Your task to perform on an android device: open a bookmark in the chrome app Image 0: 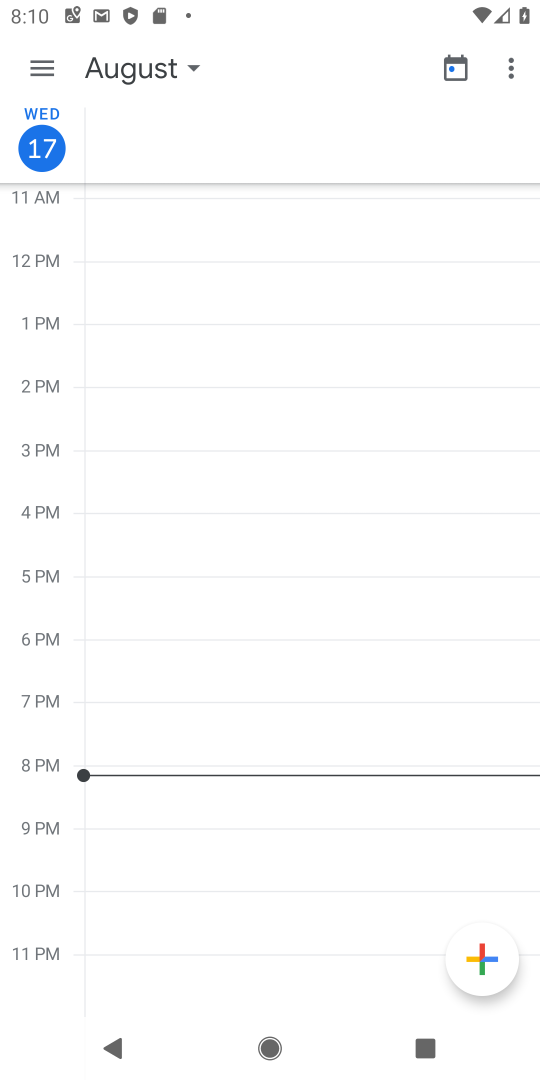
Step 0: press home button
Your task to perform on an android device: open a bookmark in the chrome app Image 1: 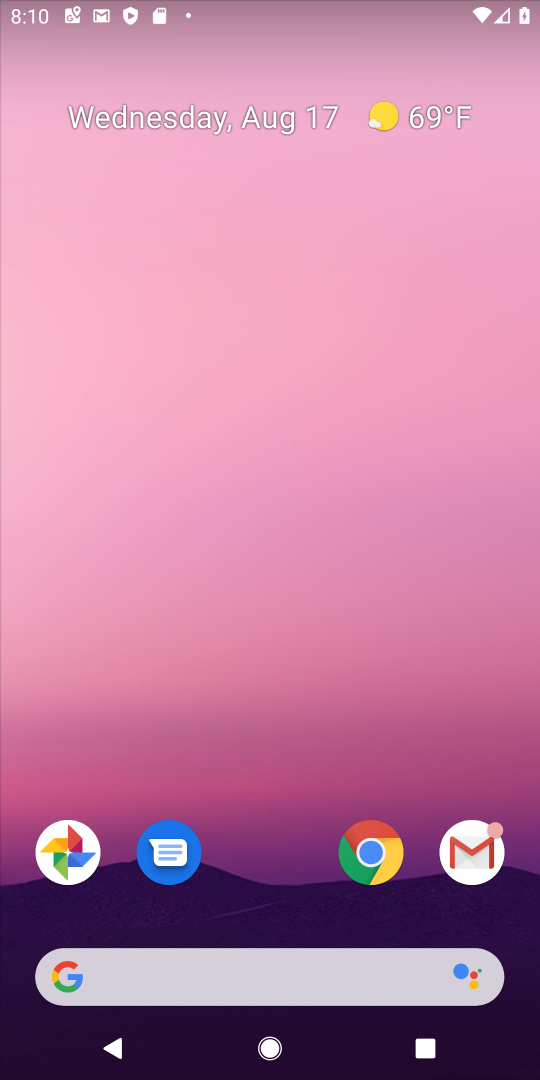
Step 1: click (372, 861)
Your task to perform on an android device: open a bookmark in the chrome app Image 2: 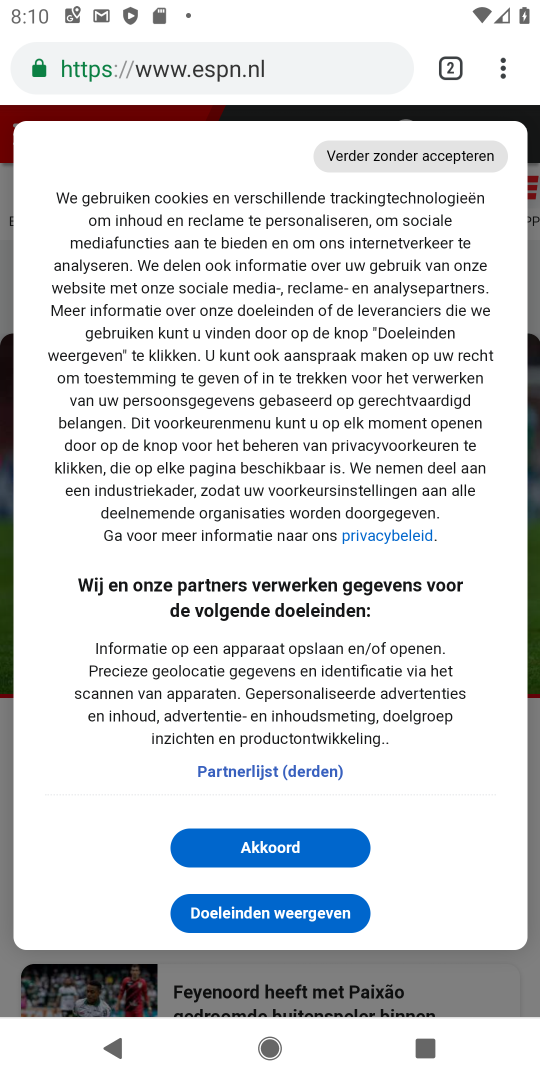
Step 2: click (505, 65)
Your task to perform on an android device: open a bookmark in the chrome app Image 3: 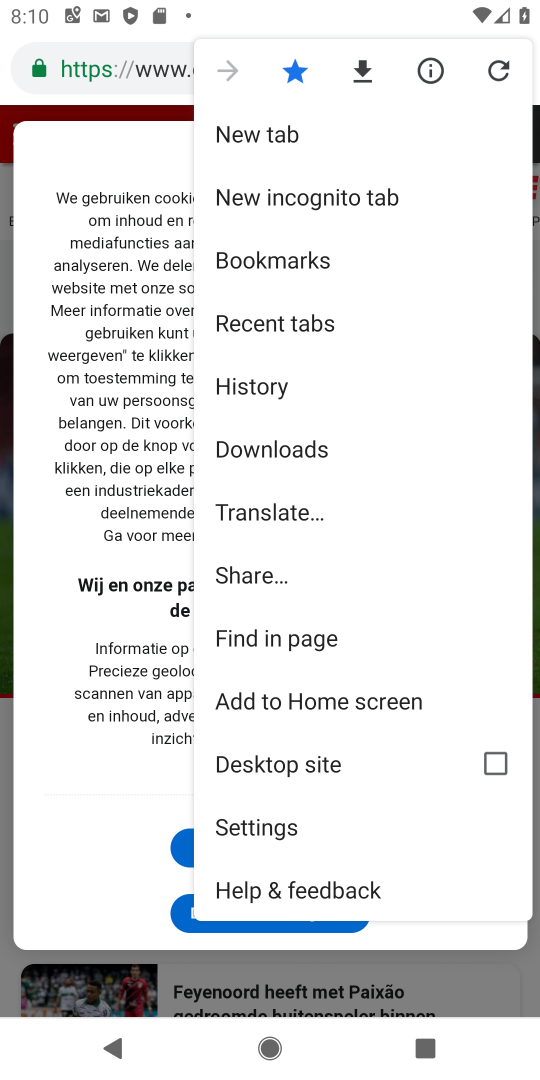
Step 3: click (289, 257)
Your task to perform on an android device: open a bookmark in the chrome app Image 4: 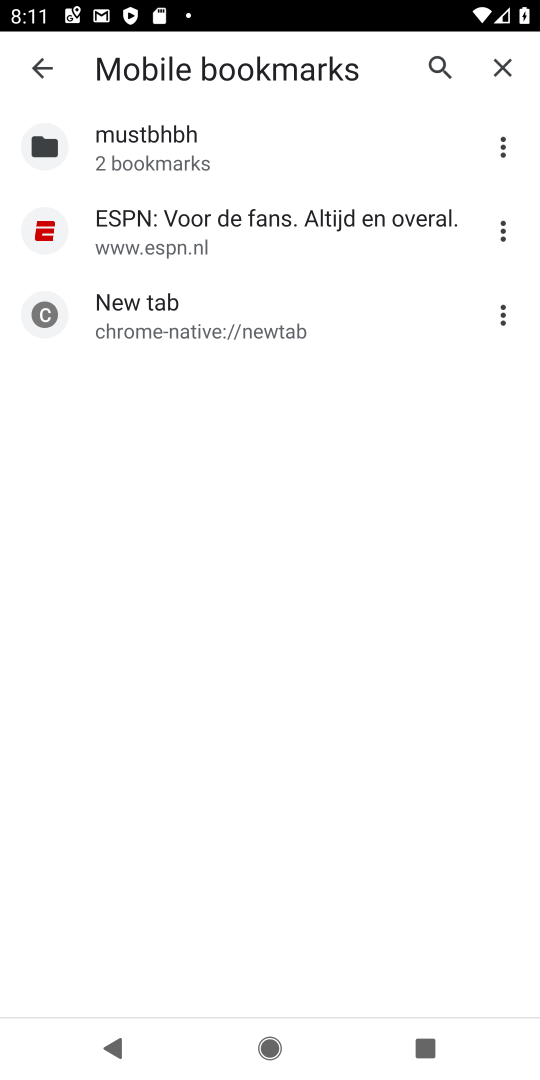
Step 4: task complete